Your task to perform on an android device: Do I have any events today? Image 0: 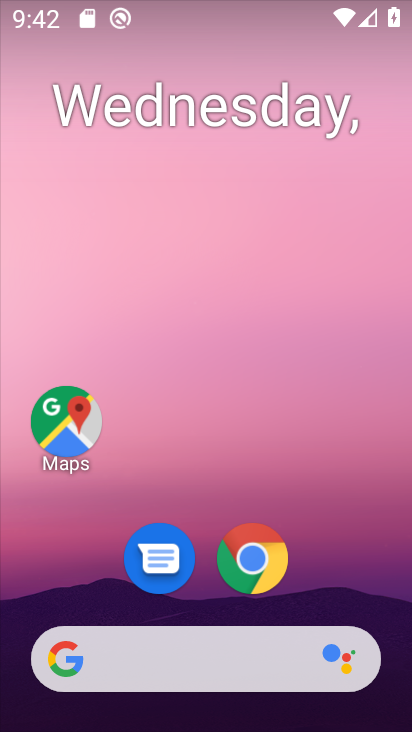
Step 0: drag from (368, 584) to (402, 67)
Your task to perform on an android device: Do I have any events today? Image 1: 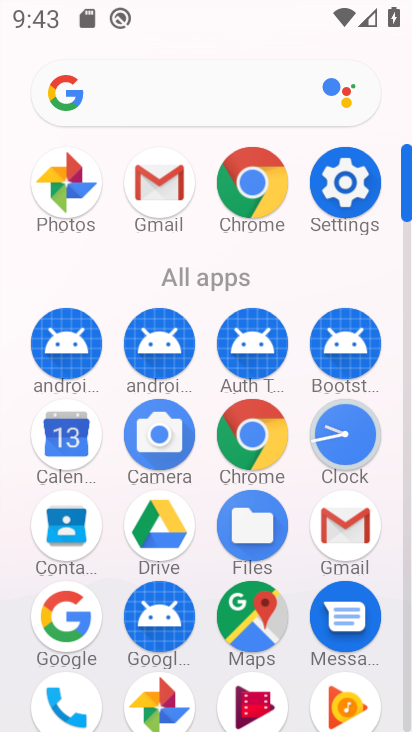
Step 1: click (80, 429)
Your task to perform on an android device: Do I have any events today? Image 2: 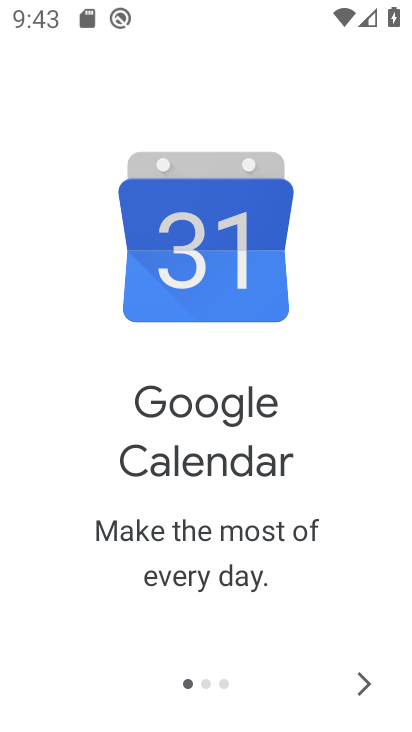
Step 2: click (360, 682)
Your task to perform on an android device: Do I have any events today? Image 3: 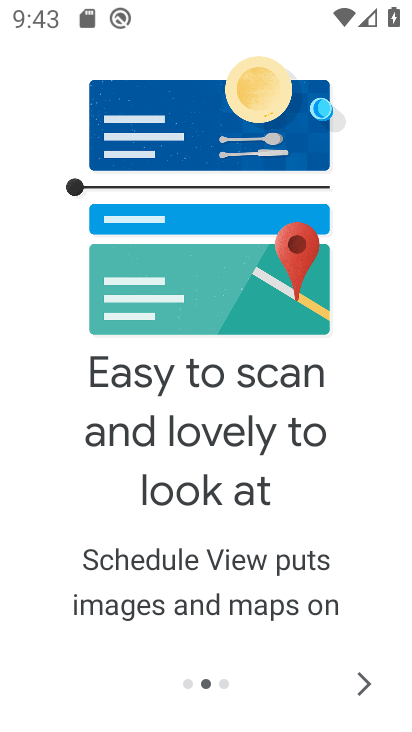
Step 3: click (360, 682)
Your task to perform on an android device: Do I have any events today? Image 4: 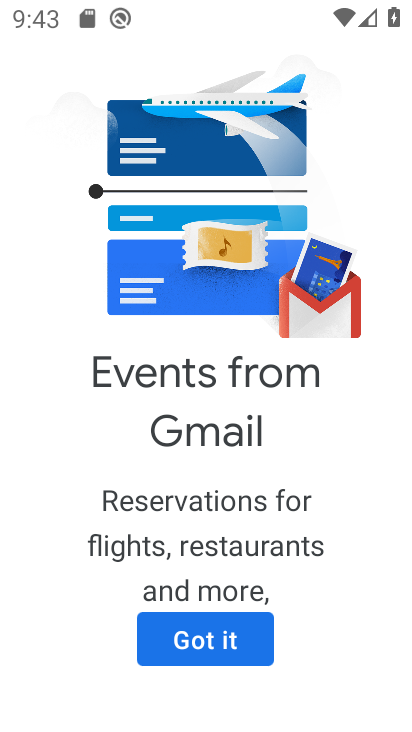
Step 4: click (255, 647)
Your task to perform on an android device: Do I have any events today? Image 5: 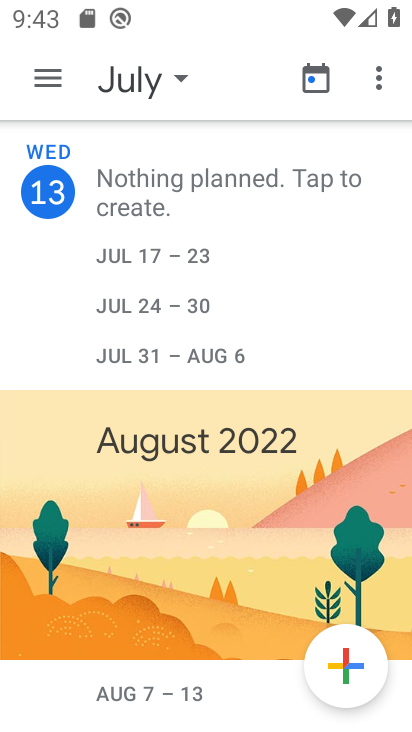
Step 5: click (189, 76)
Your task to perform on an android device: Do I have any events today? Image 6: 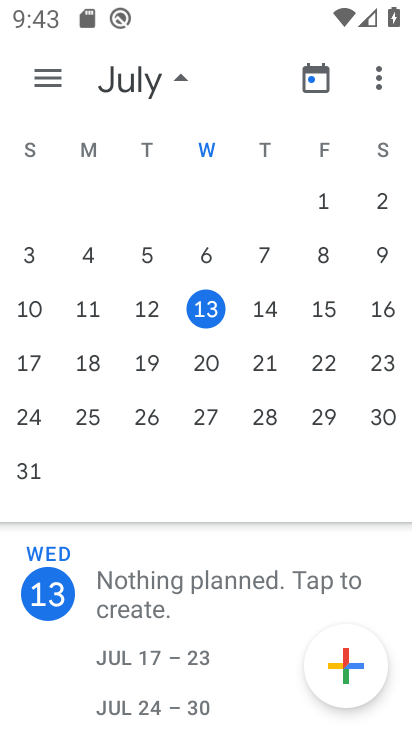
Step 6: click (275, 315)
Your task to perform on an android device: Do I have any events today? Image 7: 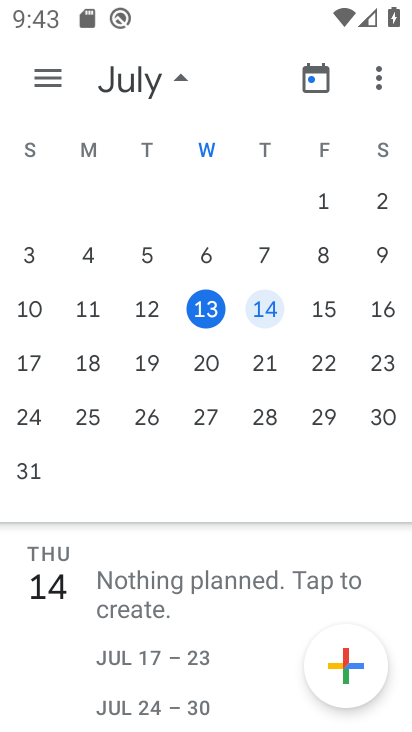
Step 7: task complete